Your task to perform on an android device: change the clock display to show seconds Image 0: 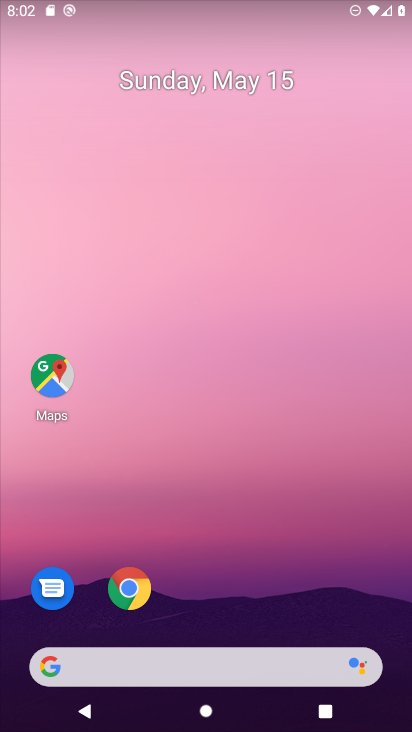
Step 0: press home button
Your task to perform on an android device: change the clock display to show seconds Image 1: 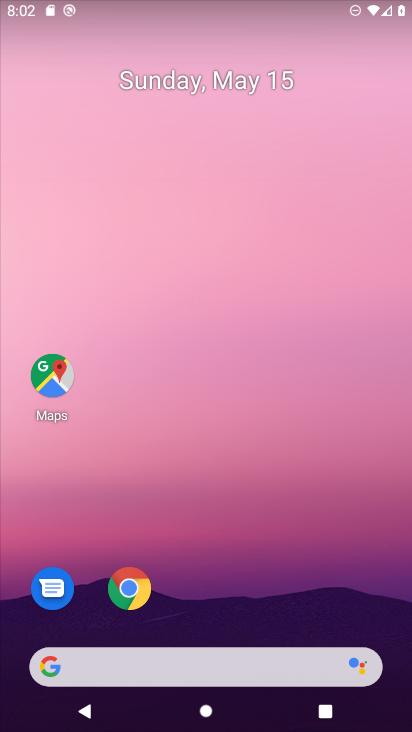
Step 1: drag from (208, 622) to (209, 83)
Your task to perform on an android device: change the clock display to show seconds Image 2: 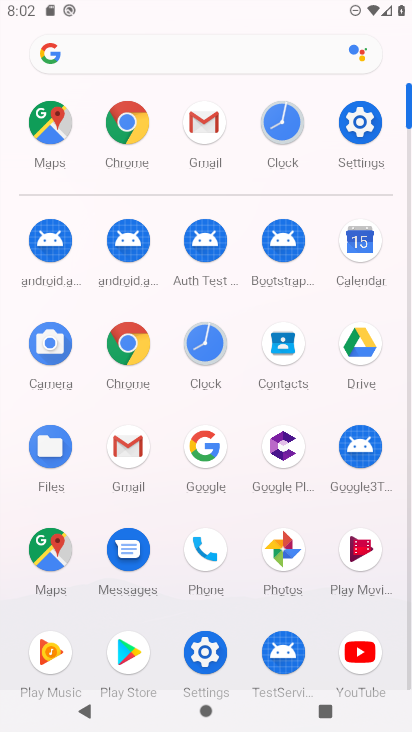
Step 2: click (202, 331)
Your task to perform on an android device: change the clock display to show seconds Image 3: 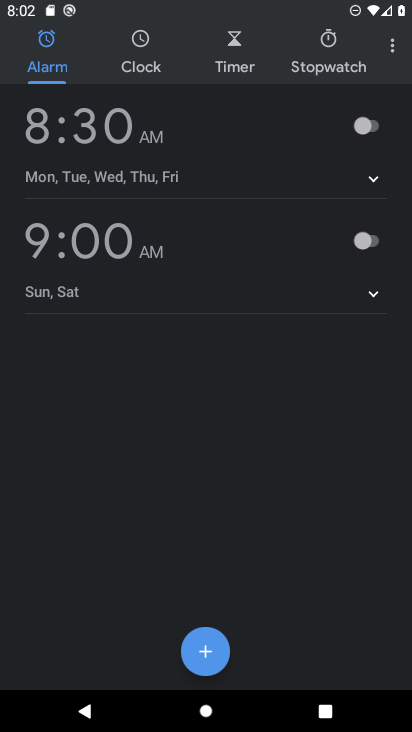
Step 3: click (389, 46)
Your task to perform on an android device: change the clock display to show seconds Image 4: 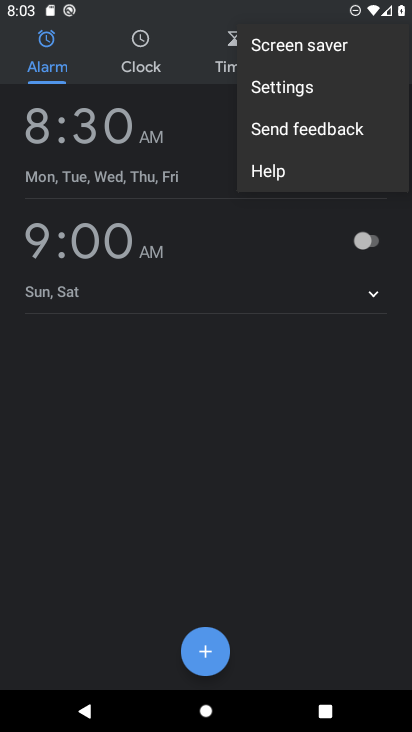
Step 4: click (318, 91)
Your task to perform on an android device: change the clock display to show seconds Image 5: 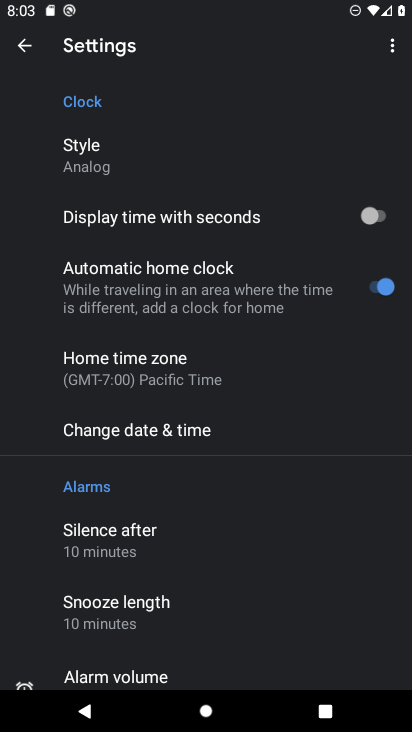
Step 5: click (358, 212)
Your task to perform on an android device: change the clock display to show seconds Image 6: 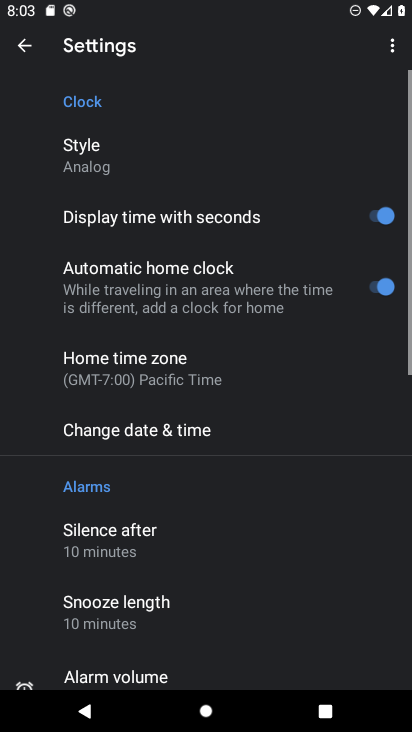
Step 6: task complete